Your task to perform on an android device: Search for sushi restaurants on Maps Image 0: 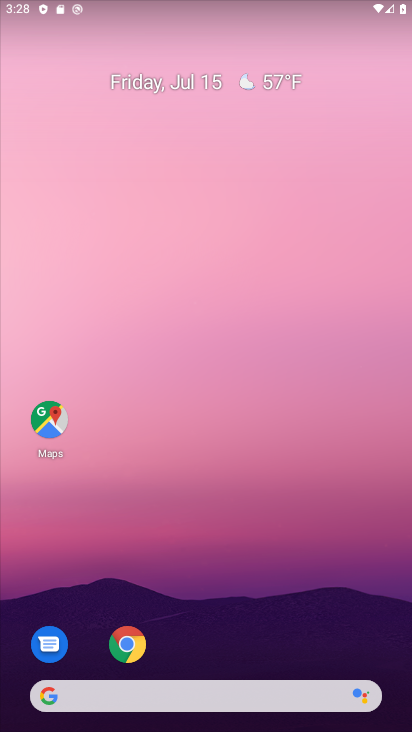
Step 0: click (55, 413)
Your task to perform on an android device: Search for sushi restaurants on Maps Image 1: 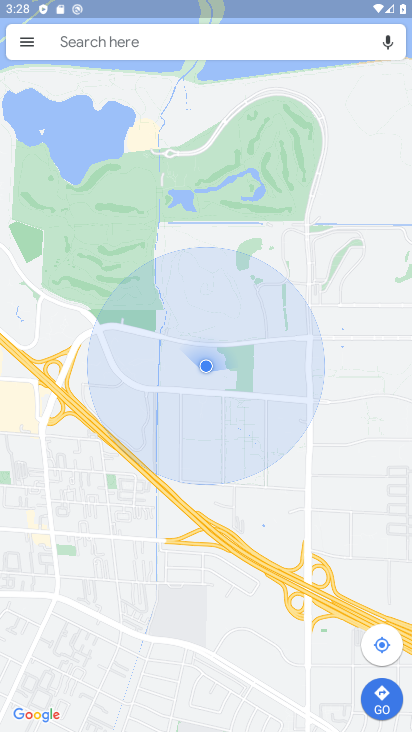
Step 1: click (142, 38)
Your task to perform on an android device: Search for sushi restaurants on Maps Image 2: 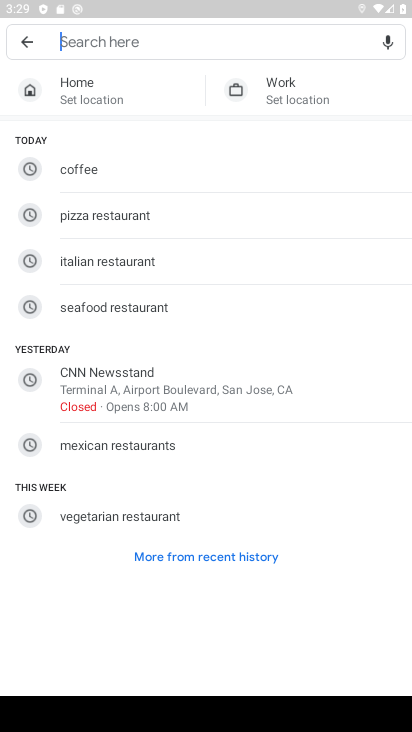
Step 2: type "sushi restaurants"
Your task to perform on an android device: Search for sushi restaurants on Maps Image 3: 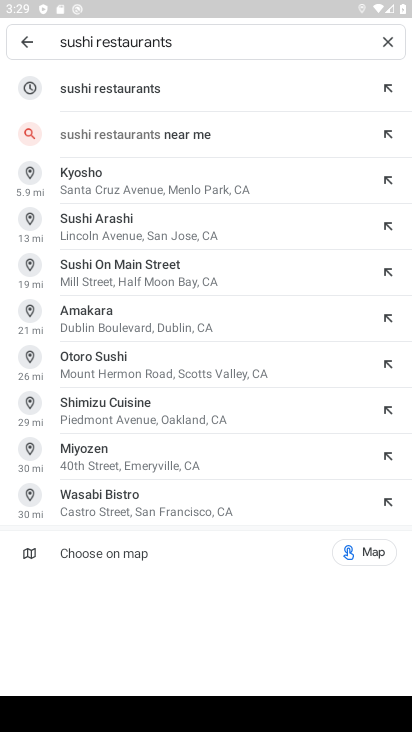
Step 3: click (161, 84)
Your task to perform on an android device: Search for sushi restaurants on Maps Image 4: 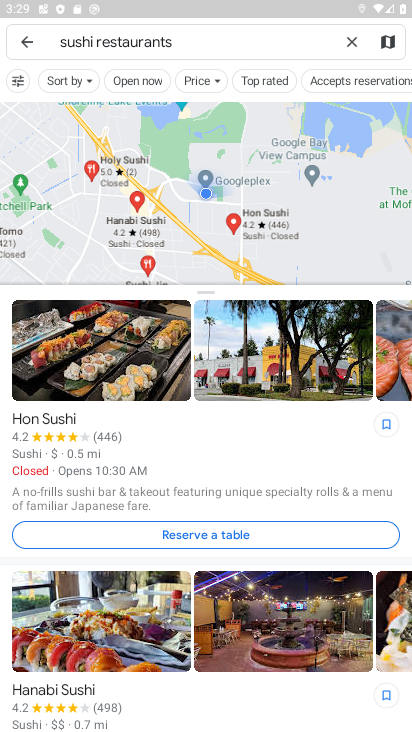
Step 4: task complete